Your task to perform on an android device: change your default location settings in chrome Image 0: 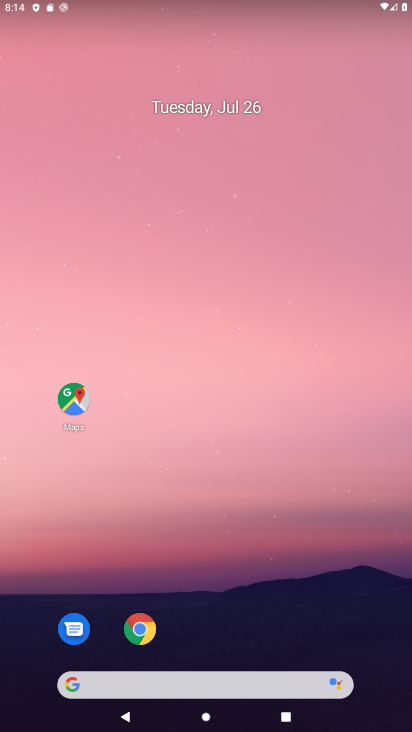
Step 0: click (152, 633)
Your task to perform on an android device: change your default location settings in chrome Image 1: 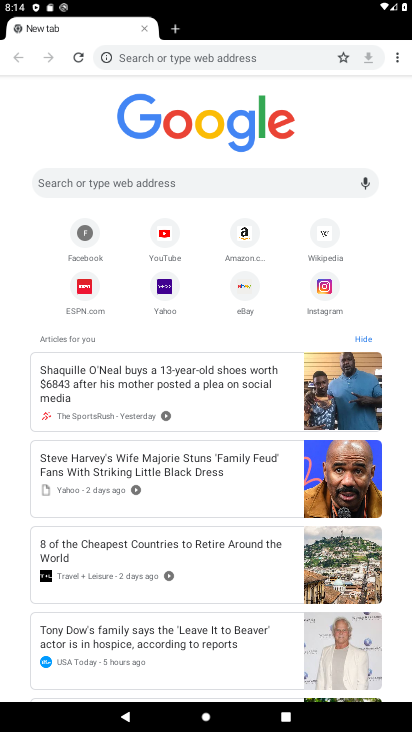
Step 1: click (397, 65)
Your task to perform on an android device: change your default location settings in chrome Image 2: 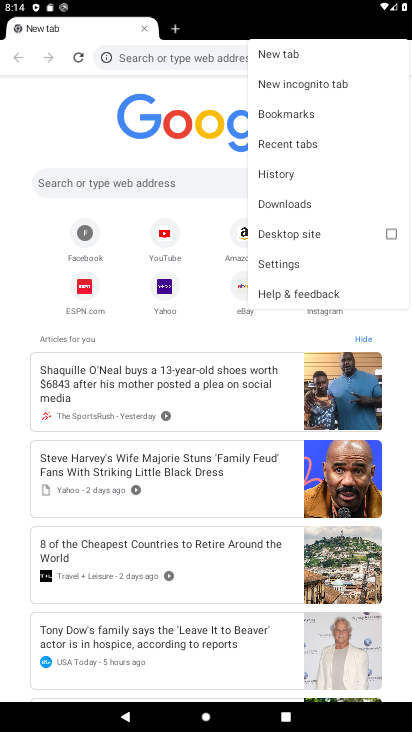
Step 2: click (285, 263)
Your task to perform on an android device: change your default location settings in chrome Image 3: 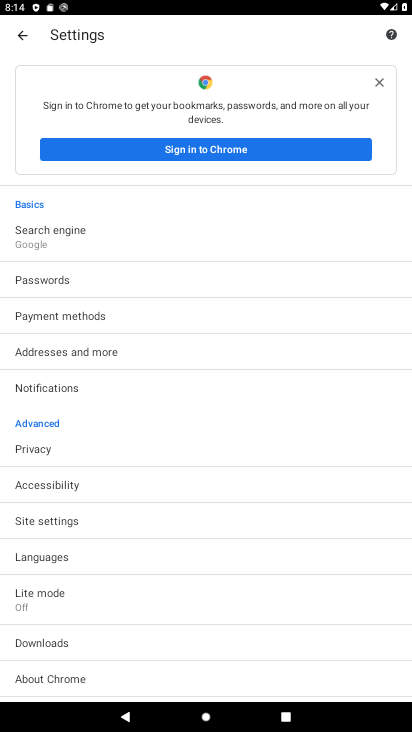
Step 3: click (68, 522)
Your task to perform on an android device: change your default location settings in chrome Image 4: 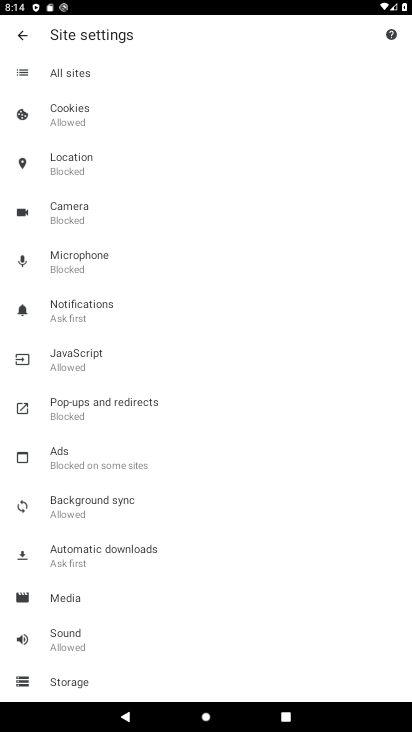
Step 4: click (60, 158)
Your task to perform on an android device: change your default location settings in chrome Image 5: 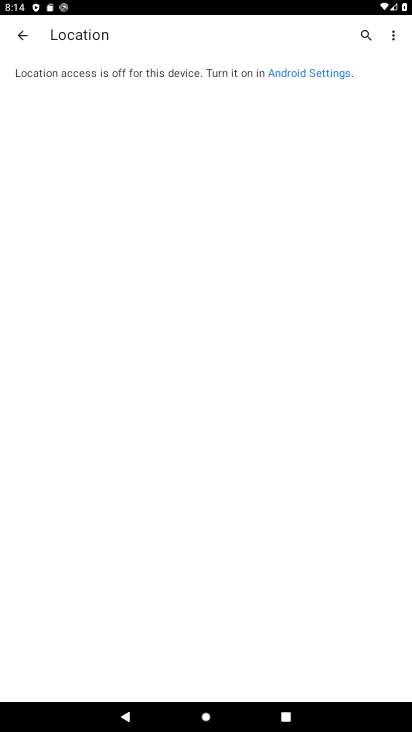
Step 5: task complete